Your task to perform on an android device: Open the clock app Image 0: 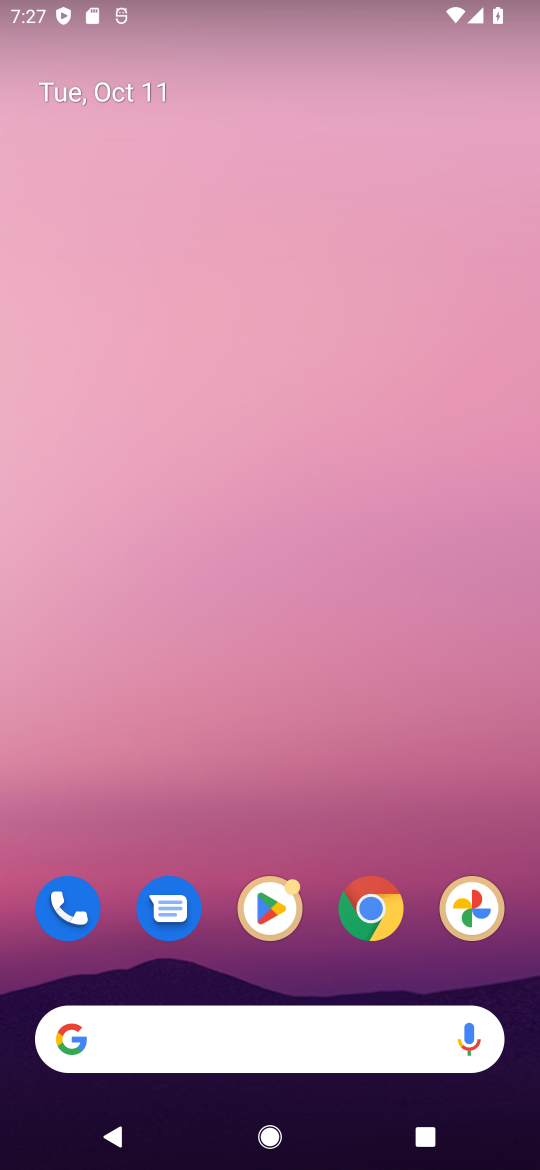
Step 0: drag from (293, 786) to (287, 143)
Your task to perform on an android device: Open the clock app Image 1: 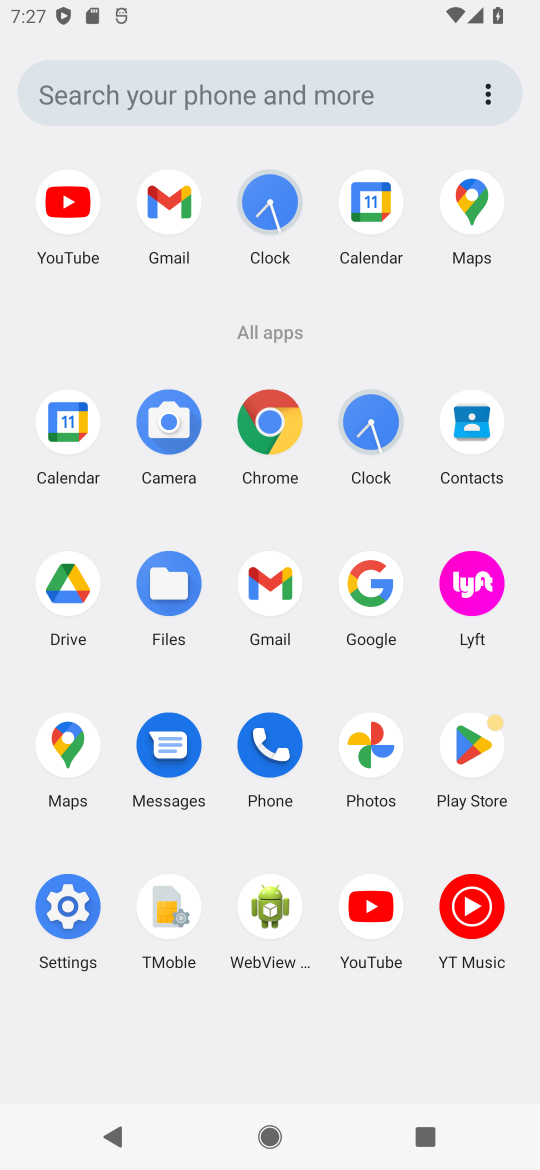
Step 1: click (271, 187)
Your task to perform on an android device: Open the clock app Image 2: 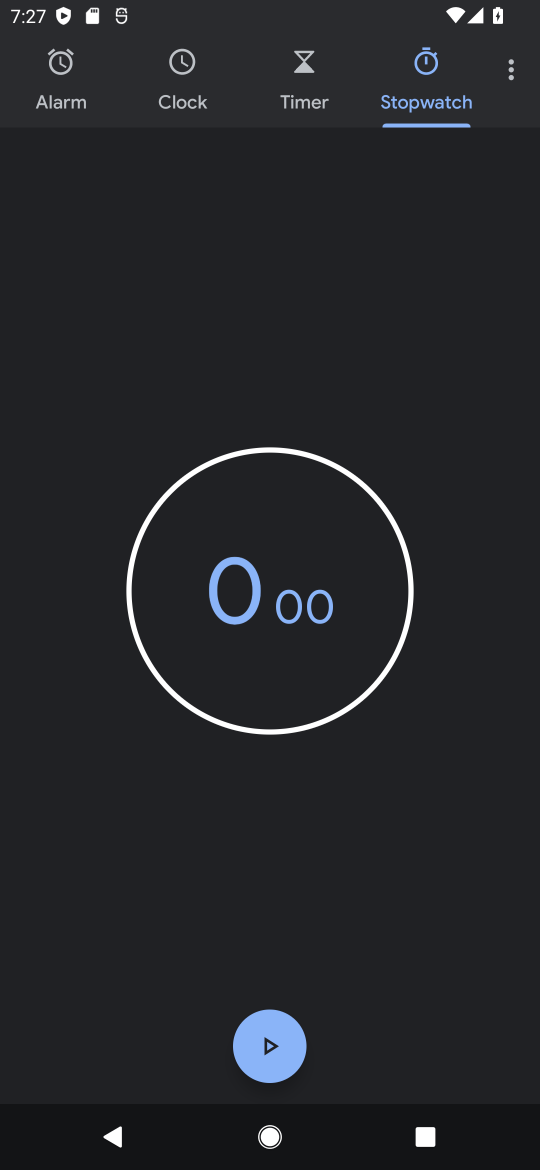
Step 2: click (176, 66)
Your task to perform on an android device: Open the clock app Image 3: 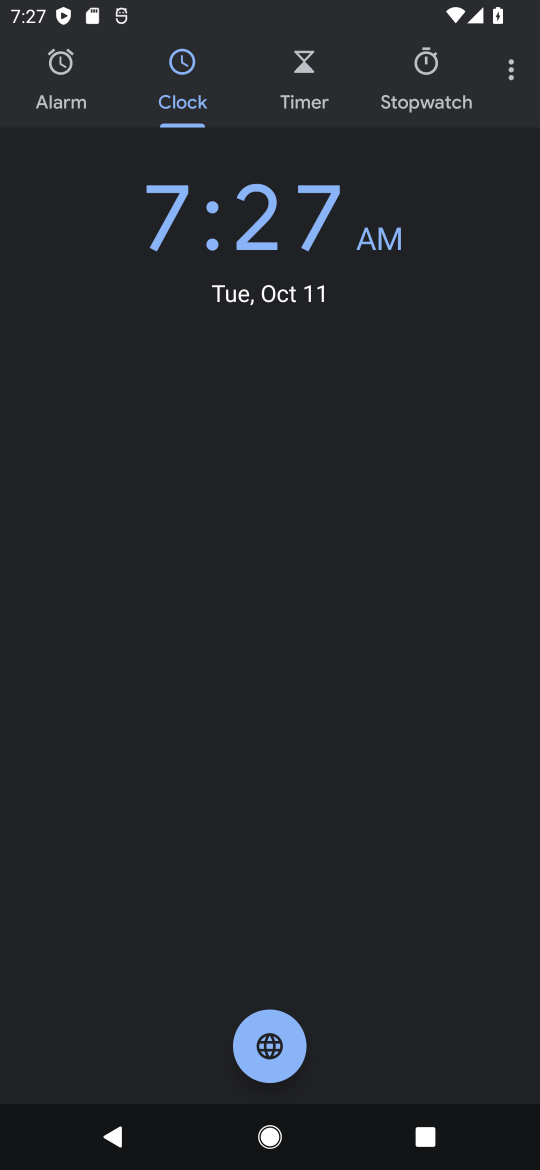
Step 3: task complete